Your task to perform on an android device: delete a single message in the gmail app Image 0: 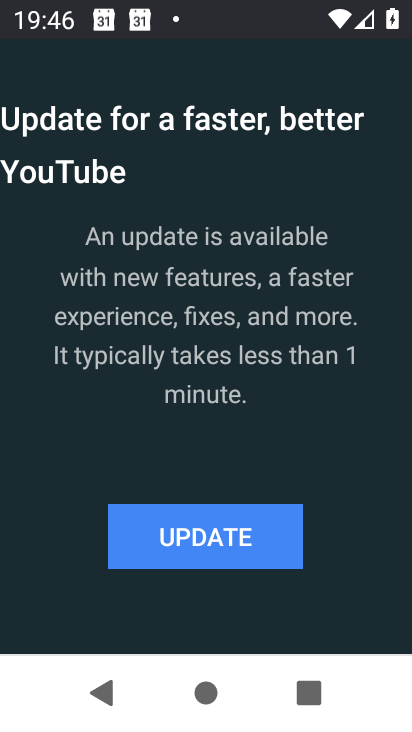
Step 0: press home button
Your task to perform on an android device: delete a single message in the gmail app Image 1: 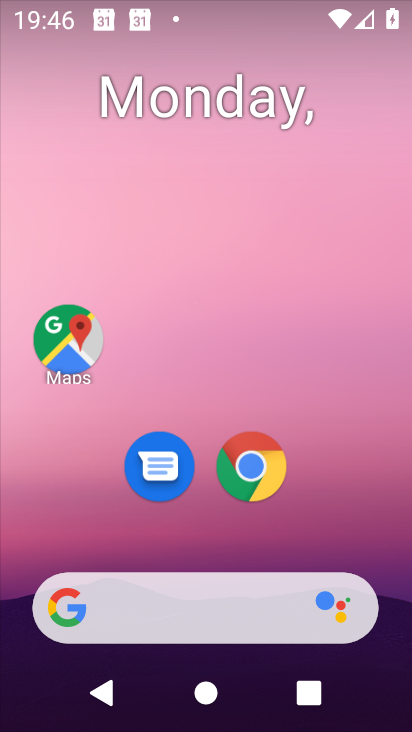
Step 1: drag from (374, 528) to (338, 144)
Your task to perform on an android device: delete a single message in the gmail app Image 2: 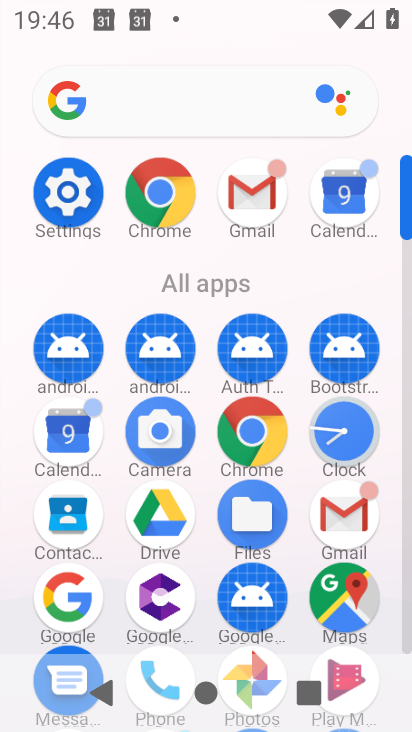
Step 2: click (261, 201)
Your task to perform on an android device: delete a single message in the gmail app Image 3: 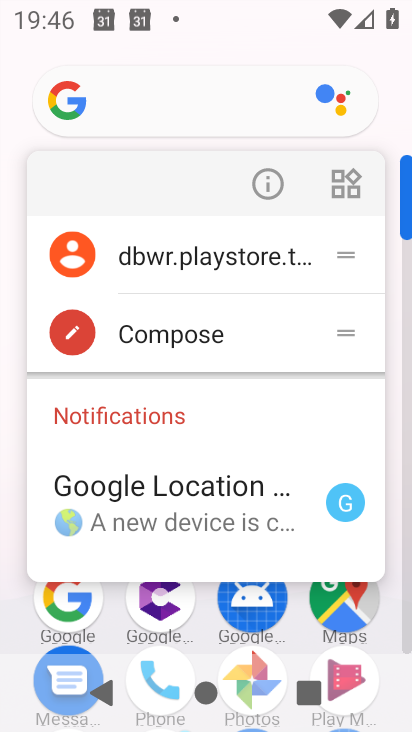
Step 3: click (378, 117)
Your task to perform on an android device: delete a single message in the gmail app Image 4: 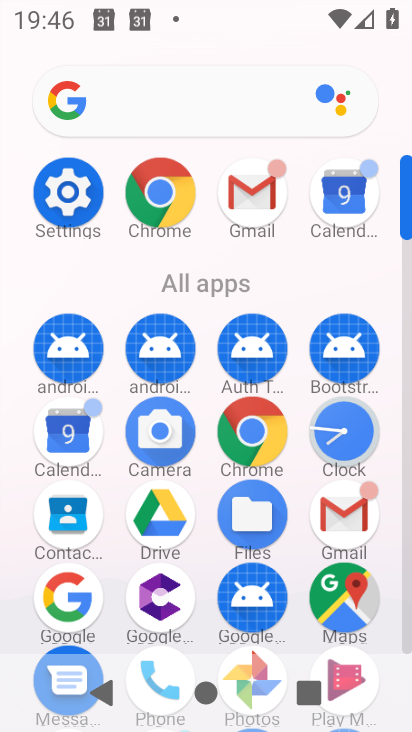
Step 4: click (262, 190)
Your task to perform on an android device: delete a single message in the gmail app Image 5: 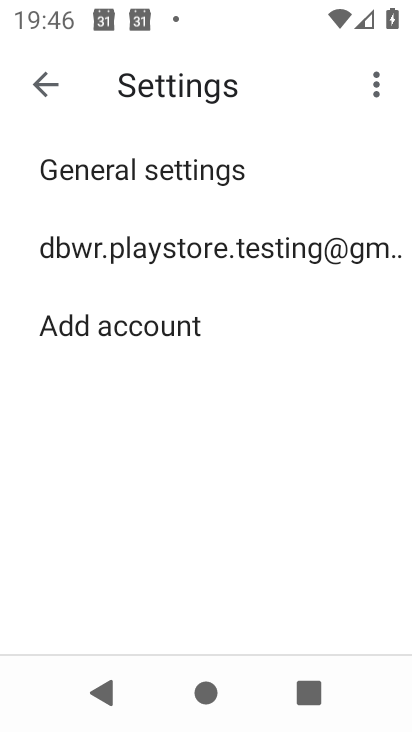
Step 5: click (38, 94)
Your task to perform on an android device: delete a single message in the gmail app Image 6: 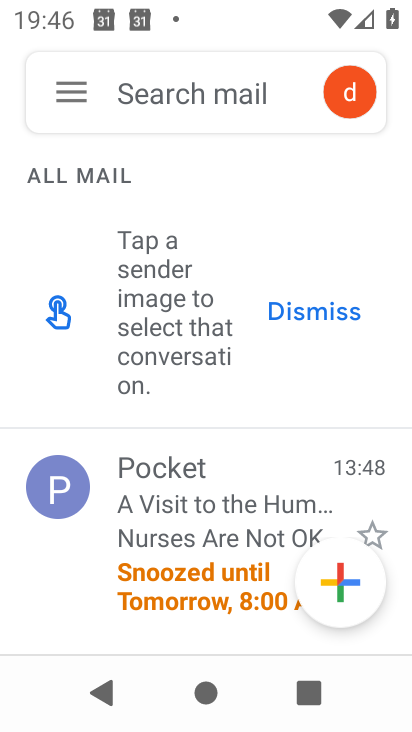
Step 6: click (262, 511)
Your task to perform on an android device: delete a single message in the gmail app Image 7: 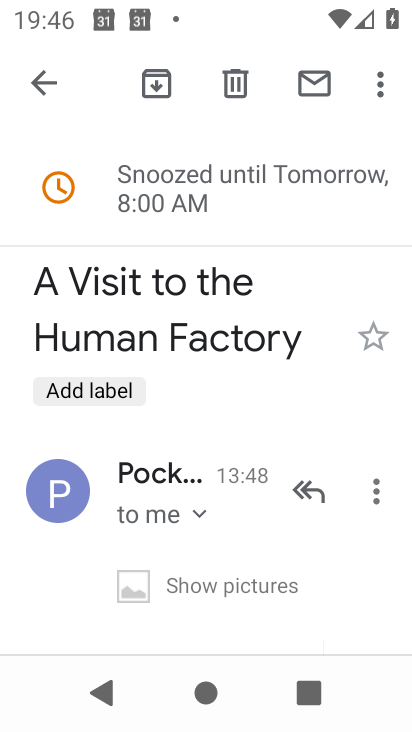
Step 7: click (245, 91)
Your task to perform on an android device: delete a single message in the gmail app Image 8: 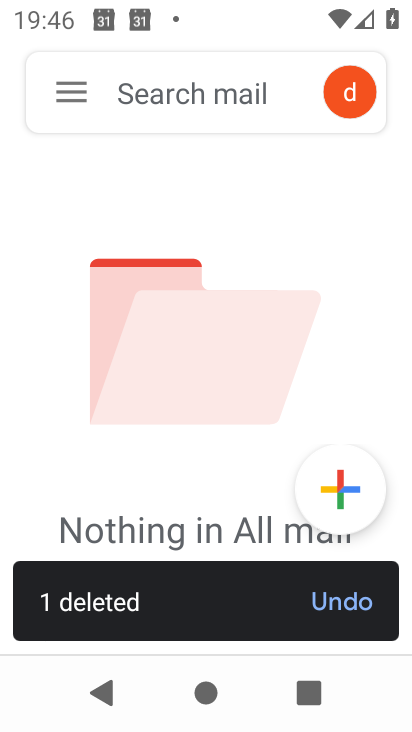
Step 8: task complete